Your task to perform on an android device: open a new tab in the chrome app Image 0: 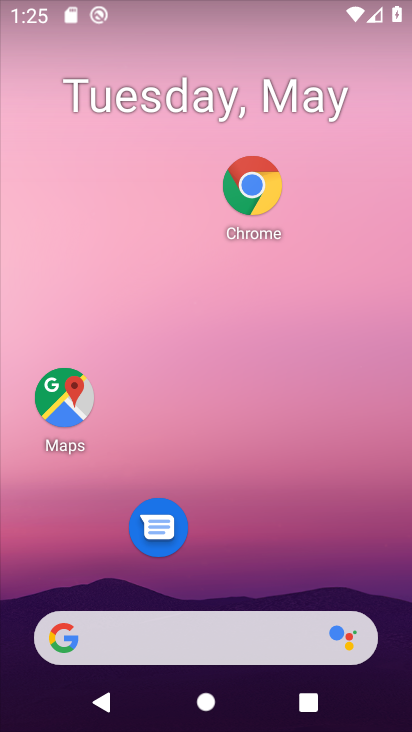
Step 0: click (254, 181)
Your task to perform on an android device: open a new tab in the chrome app Image 1: 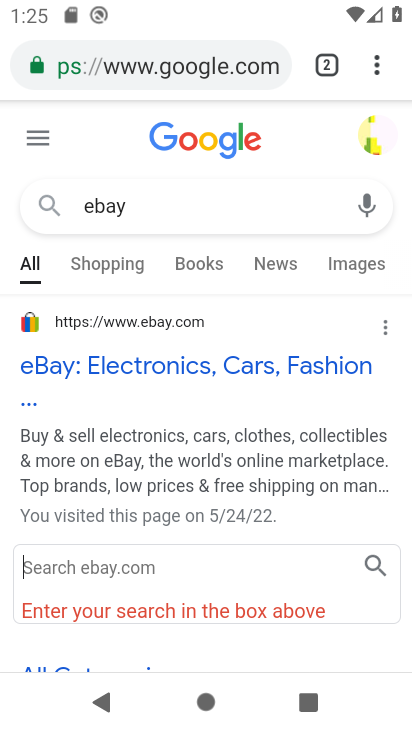
Step 1: click (377, 64)
Your task to perform on an android device: open a new tab in the chrome app Image 2: 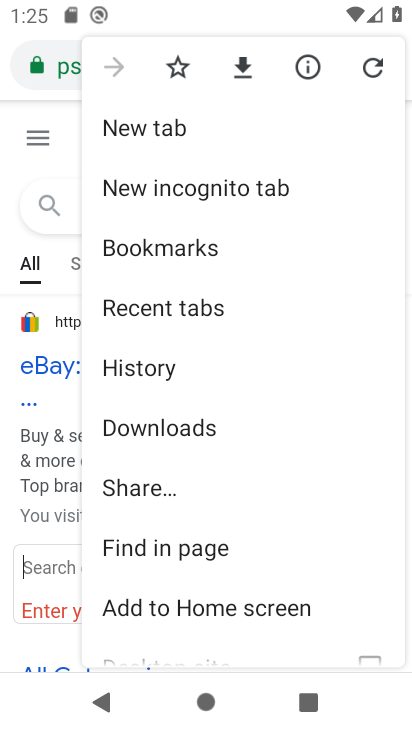
Step 2: click (151, 127)
Your task to perform on an android device: open a new tab in the chrome app Image 3: 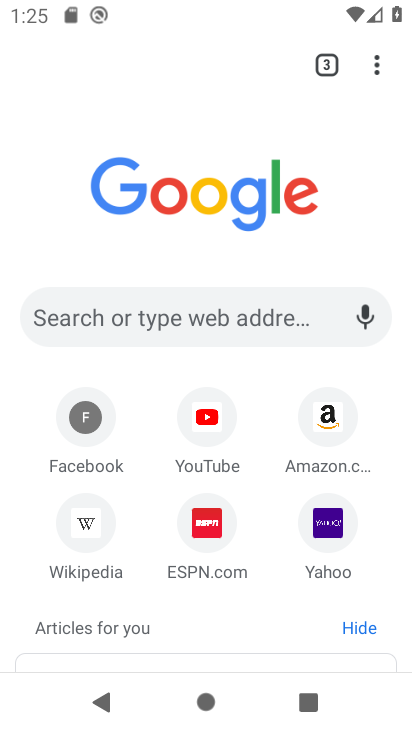
Step 3: task complete